Your task to perform on an android device: turn notification dots off Image 0: 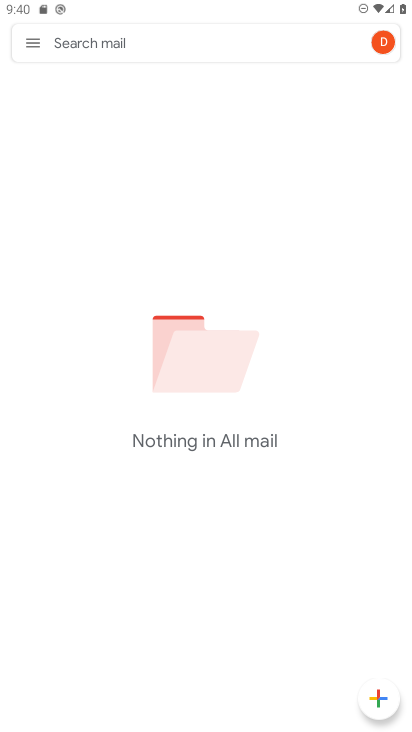
Step 0: press home button
Your task to perform on an android device: turn notification dots off Image 1: 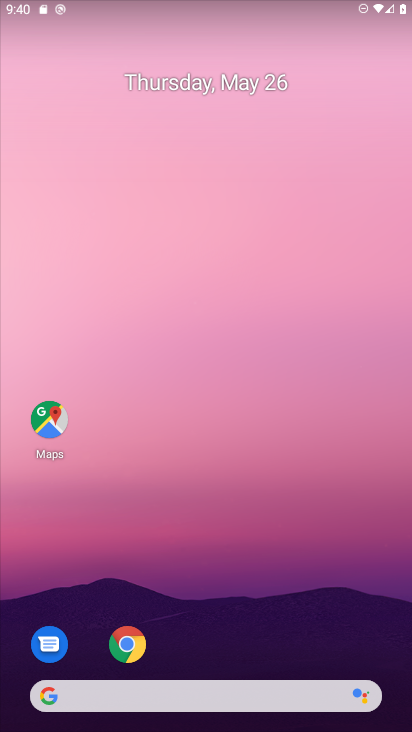
Step 1: drag from (158, 669) to (273, 89)
Your task to perform on an android device: turn notification dots off Image 2: 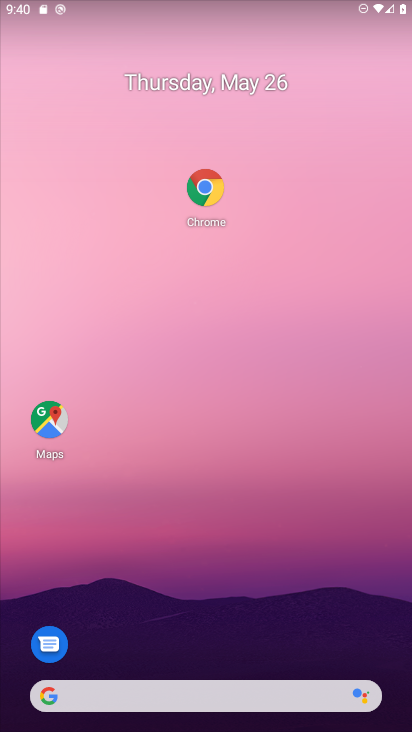
Step 2: drag from (164, 670) to (289, 133)
Your task to perform on an android device: turn notification dots off Image 3: 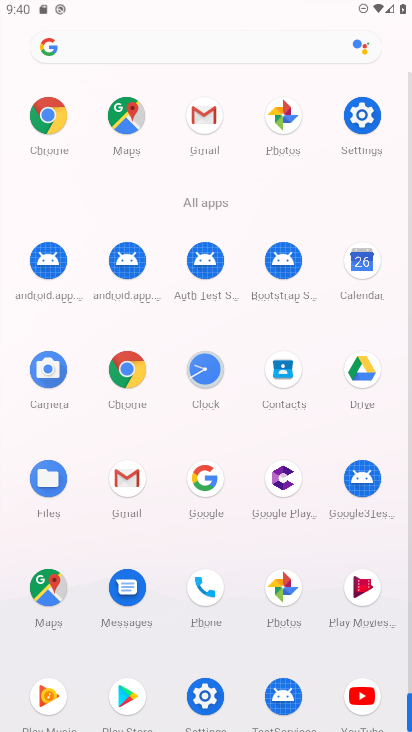
Step 3: click (367, 90)
Your task to perform on an android device: turn notification dots off Image 4: 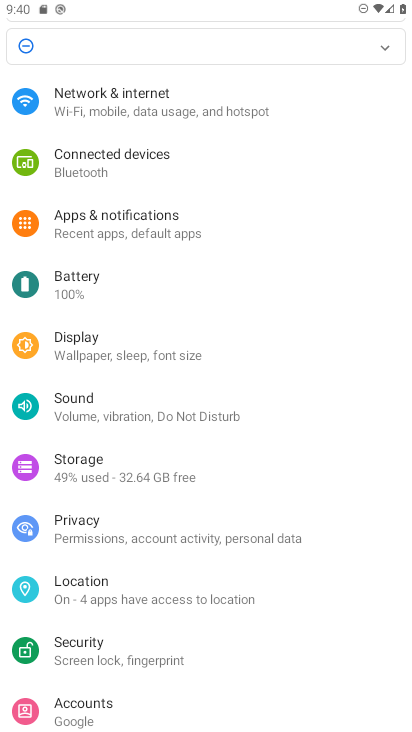
Step 4: click (159, 226)
Your task to perform on an android device: turn notification dots off Image 5: 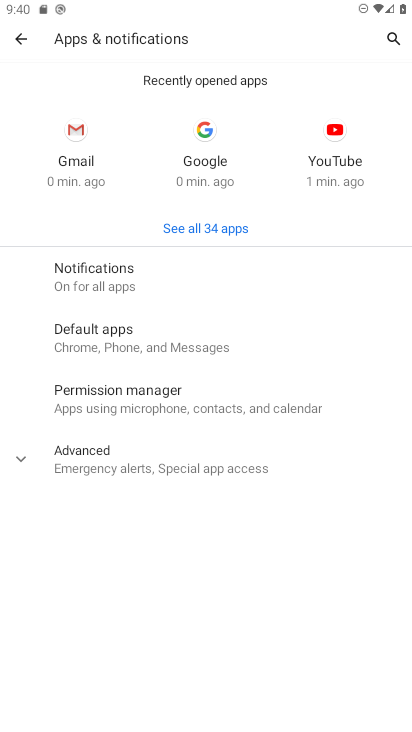
Step 5: click (172, 278)
Your task to perform on an android device: turn notification dots off Image 6: 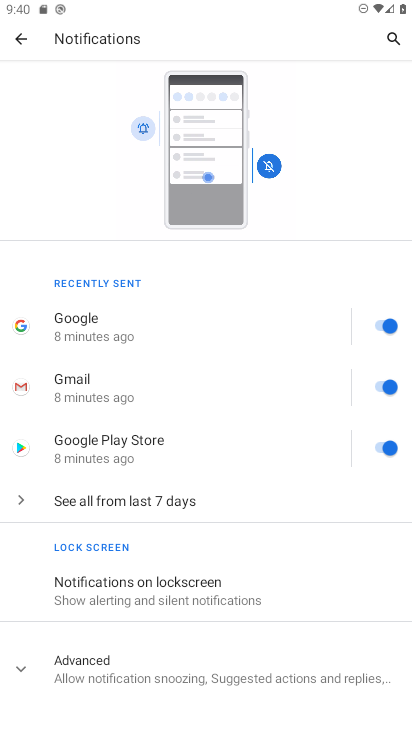
Step 6: drag from (148, 605) to (310, 61)
Your task to perform on an android device: turn notification dots off Image 7: 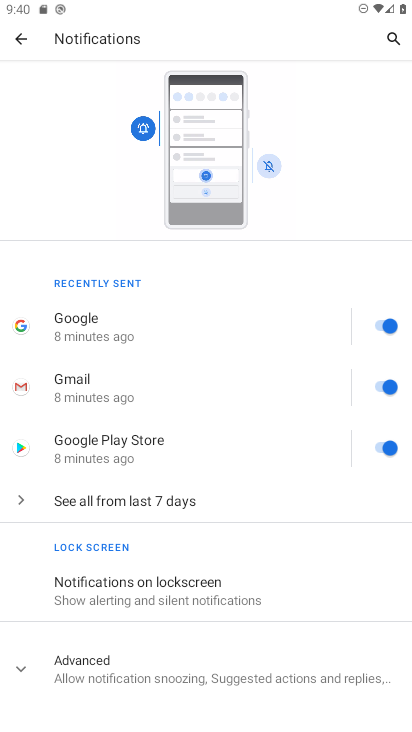
Step 7: click (137, 654)
Your task to perform on an android device: turn notification dots off Image 8: 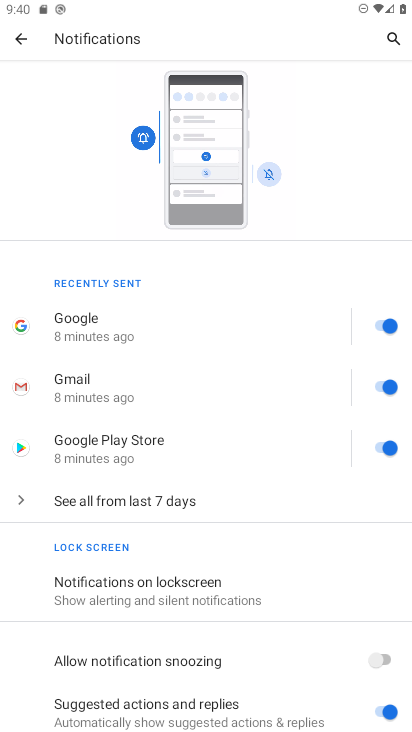
Step 8: task complete